Your task to perform on an android device: turn off data saver in the chrome app Image 0: 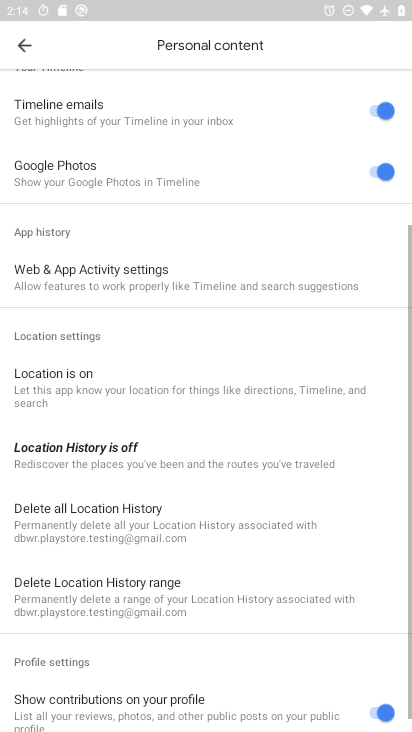
Step 0: press home button
Your task to perform on an android device: turn off data saver in the chrome app Image 1: 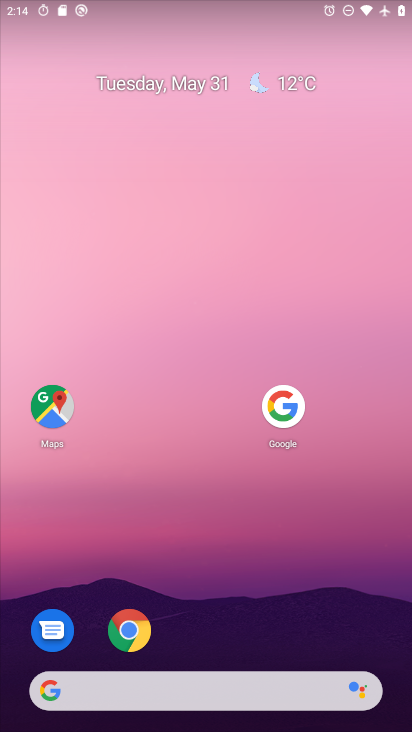
Step 1: click (134, 640)
Your task to perform on an android device: turn off data saver in the chrome app Image 2: 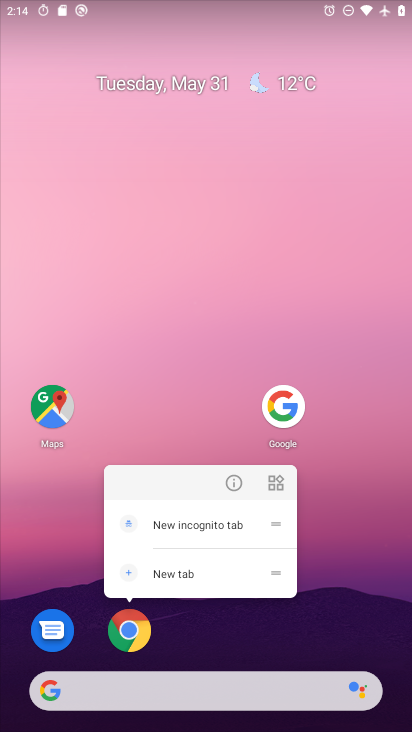
Step 2: click (138, 641)
Your task to perform on an android device: turn off data saver in the chrome app Image 3: 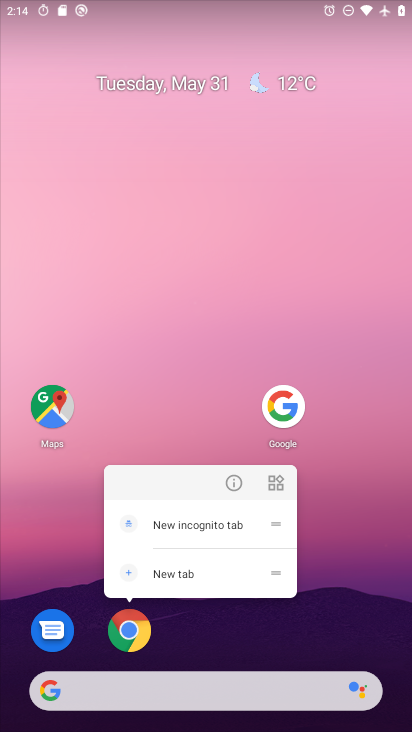
Step 3: click (133, 633)
Your task to perform on an android device: turn off data saver in the chrome app Image 4: 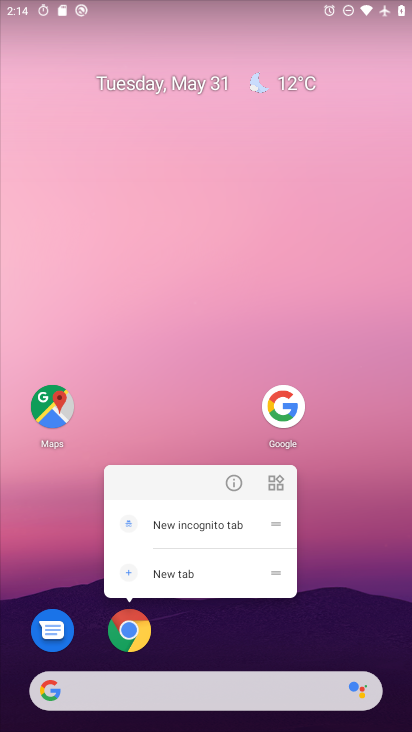
Step 4: click (124, 640)
Your task to perform on an android device: turn off data saver in the chrome app Image 5: 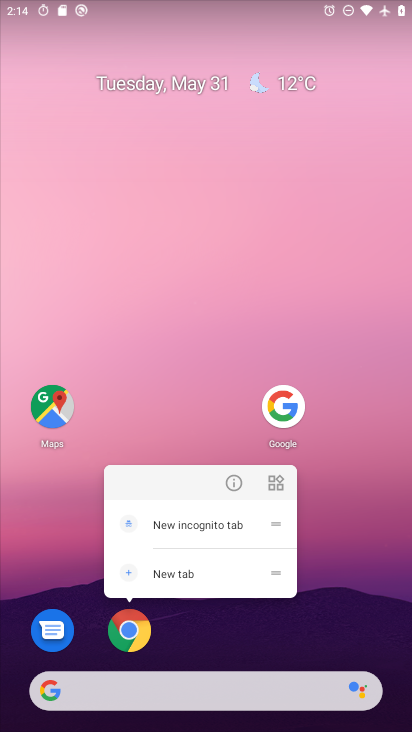
Step 5: click (124, 641)
Your task to perform on an android device: turn off data saver in the chrome app Image 6: 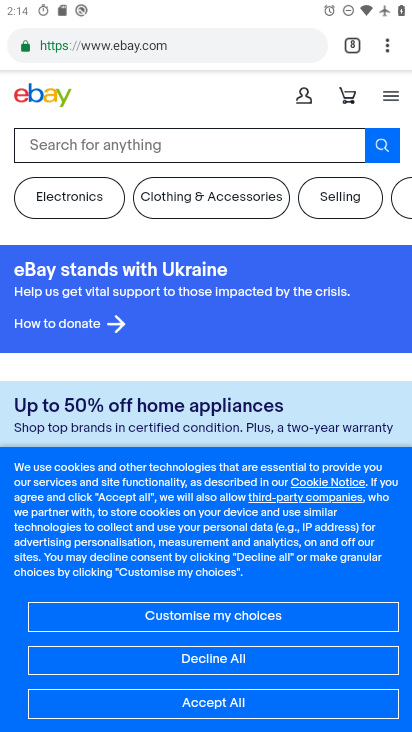
Step 6: drag from (386, 41) to (240, 593)
Your task to perform on an android device: turn off data saver in the chrome app Image 7: 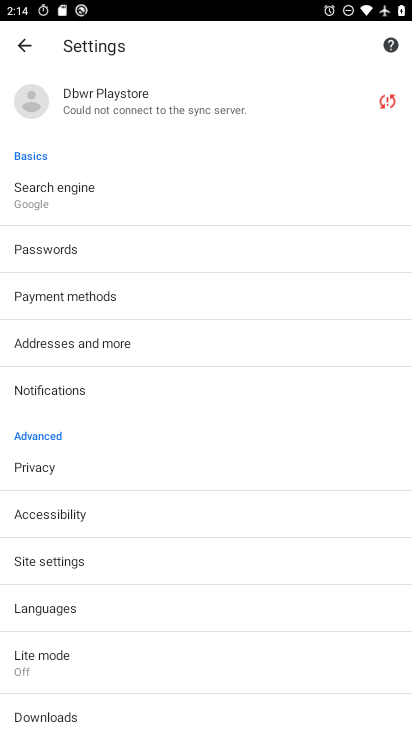
Step 7: click (70, 657)
Your task to perform on an android device: turn off data saver in the chrome app Image 8: 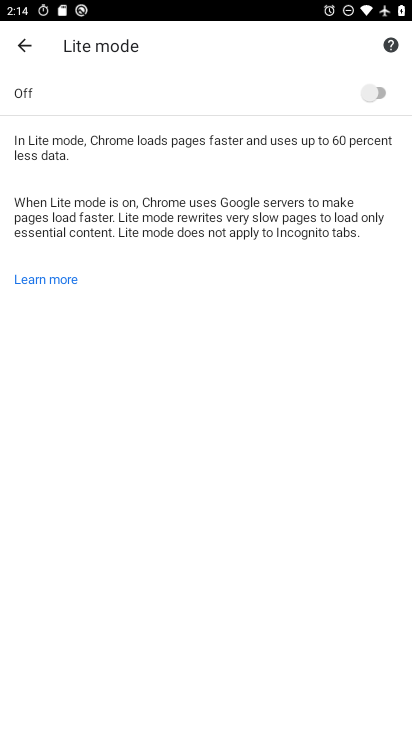
Step 8: task complete